Your task to perform on an android device: Show me recent news Image 0: 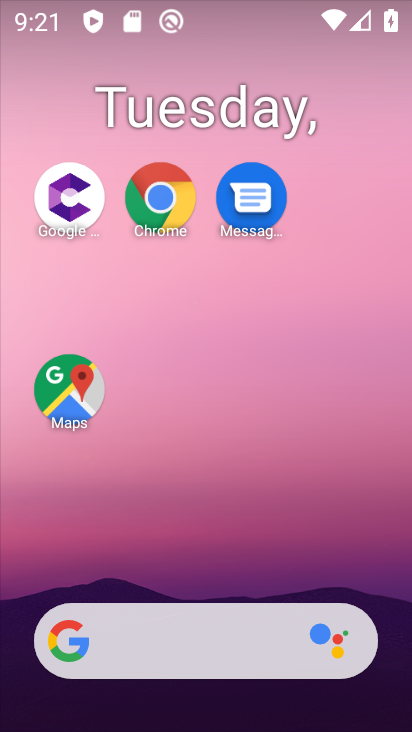
Step 0: drag from (18, 460) to (373, 469)
Your task to perform on an android device: Show me recent news Image 1: 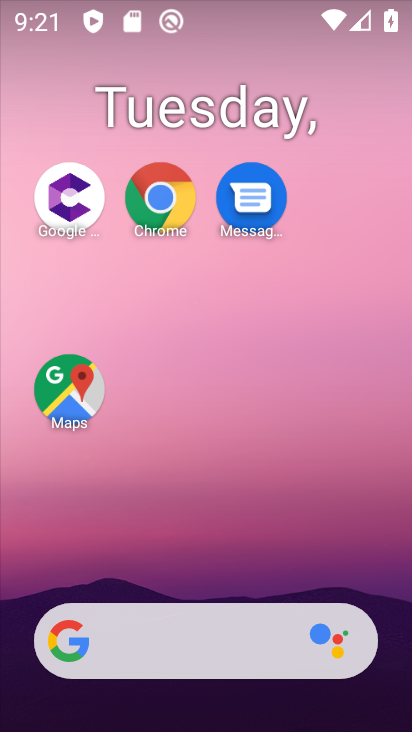
Step 1: task complete